Your task to perform on an android device: change the clock style Image 0: 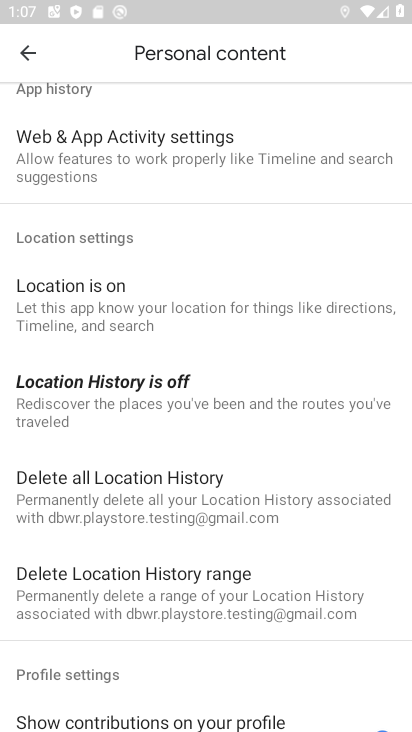
Step 0: press back button
Your task to perform on an android device: change the clock style Image 1: 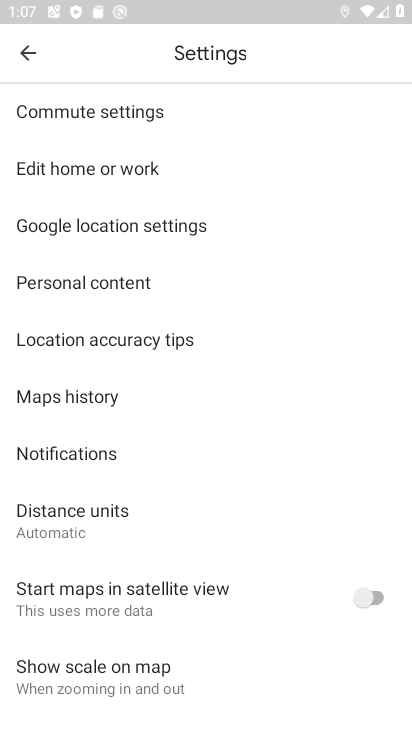
Step 1: press back button
Your task to perform on an android device: change the clock style Image 2: 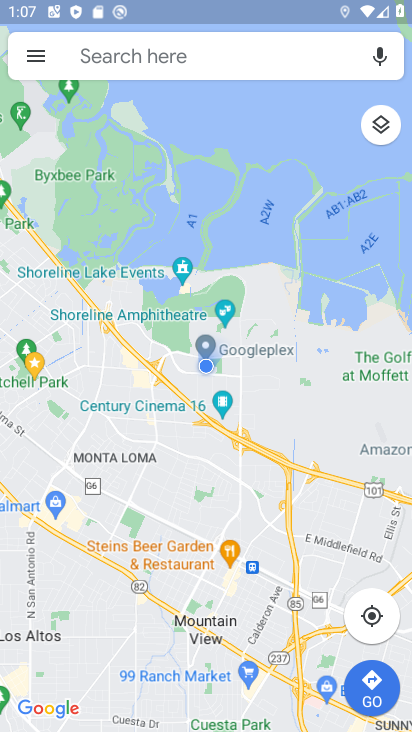
Step 2: press back button
Your task to perform on an android device: change the clock style Image 3: 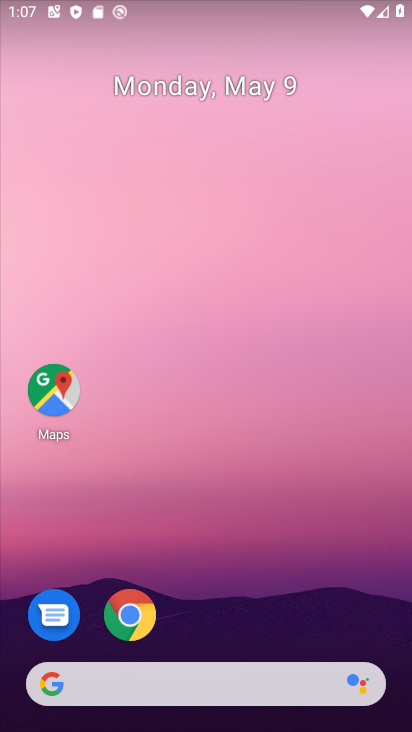
Step 3: drag from (266, 573) to (201, 61)
Your task to perform on an android device: change the clock style Image 4: 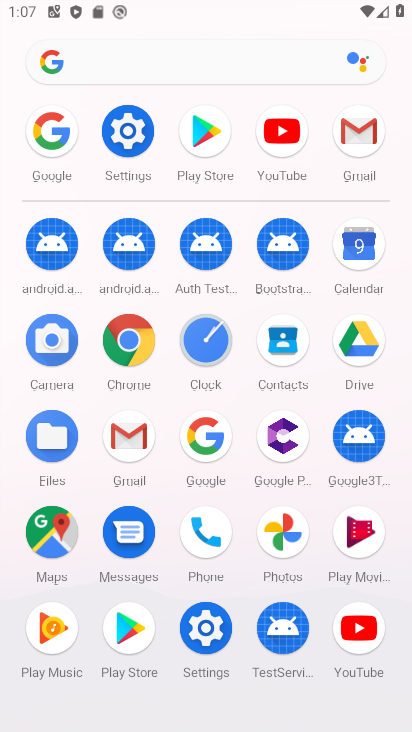
Step 4: click (207, 342)
Your task to perform on an android device: change the clock style Image 5: 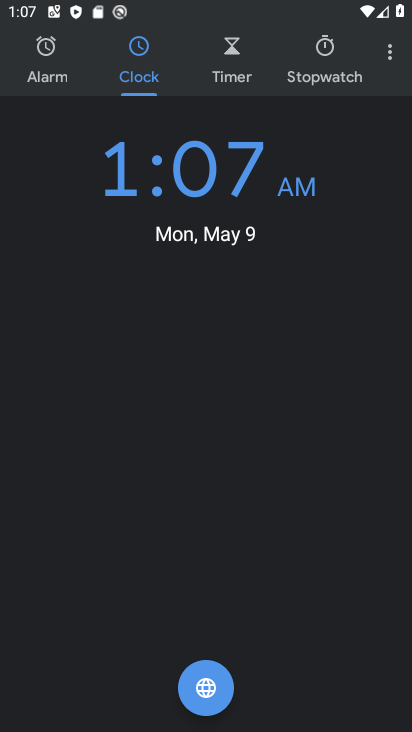
Step 5: click (391, 48)
Your task to perform on an android device: change the clock style Image 6: 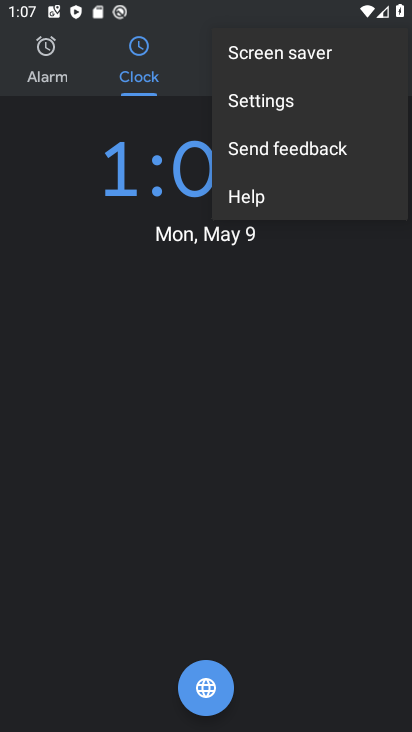
Step 6: click (279, 101)
Your task to perform on an android device: change the clock style Image 7: 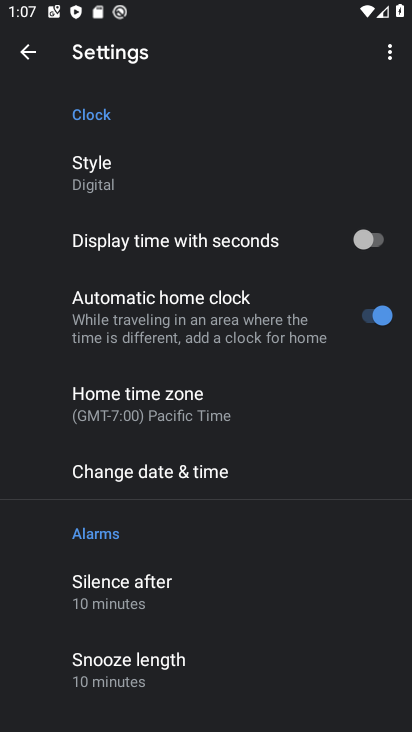
Step 7: click (108, 189)
Your task to perform on an android device: change the clock style Image 8: 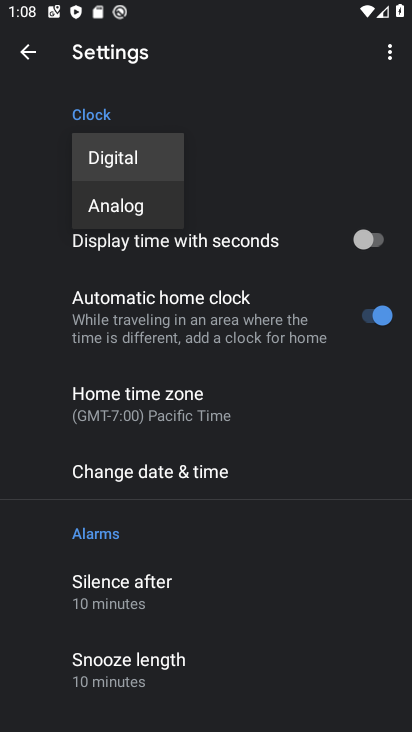
Step 8: click (125, 206)
Your task to perform on an android device: change the clock style Image 9: 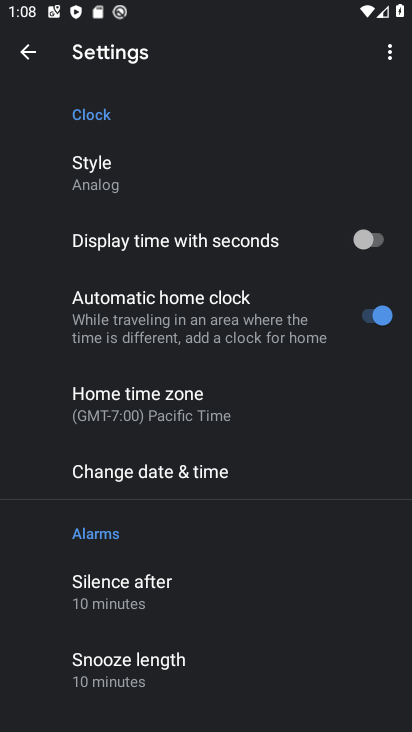
Step 9: task complete